Your task to perform on an android device: change timer sound Image 0: 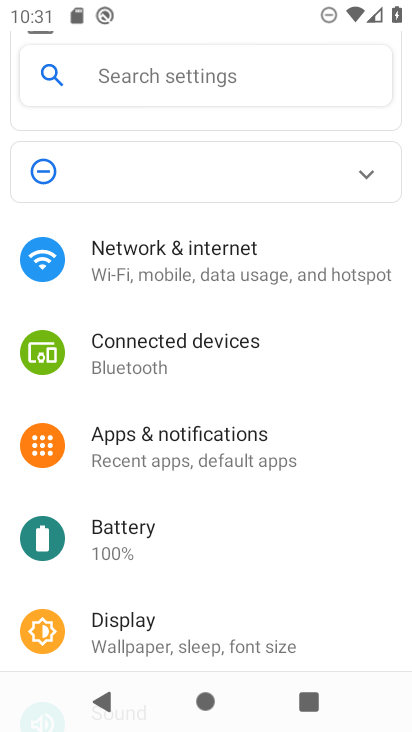
Step 0: press home button
Your task to perform on an android device: change timer sound Image 1: 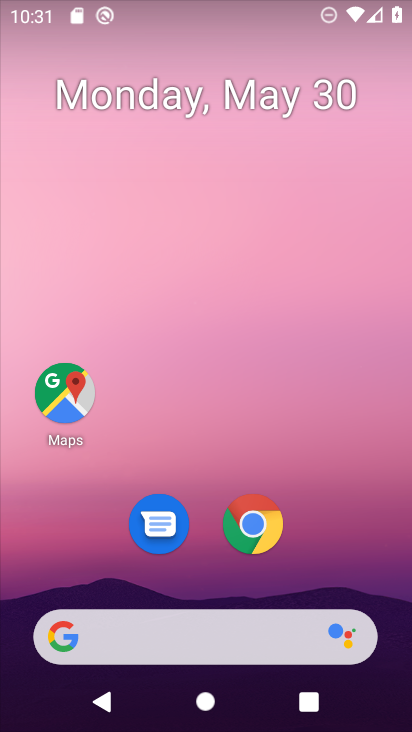
Step 1: drag from (288, 504) to (214, 22)
Your task to perform on an android device: change timer sound Image 2: 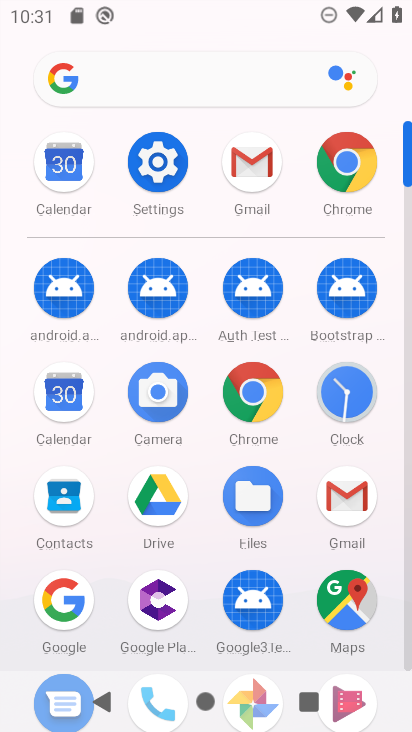
Step 2: click (348, 388)
Your task to perform on an android device: change timer sound Image 3: 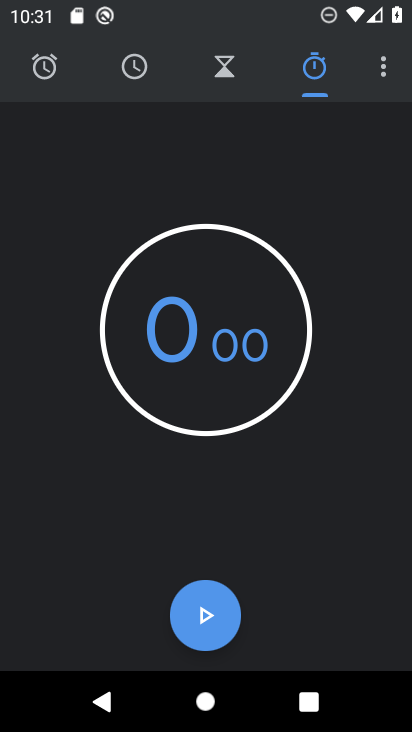
Step 3: click (389, 81)
Your task to perform on an android device: change timer sound Image 4: 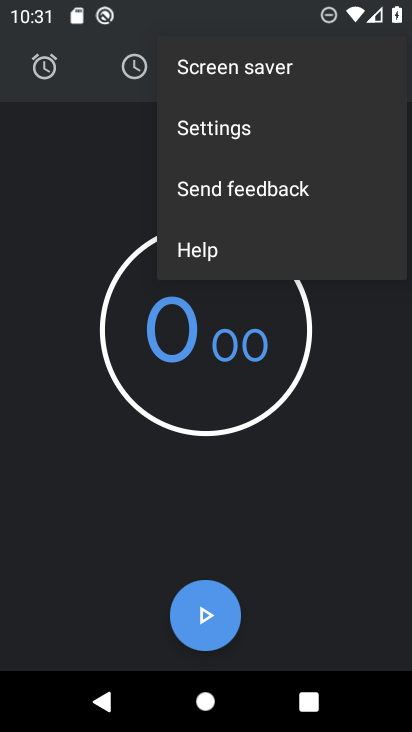
Step 4: click (300, 139)
Your task to perform on an android device: change timer sound Image 5: 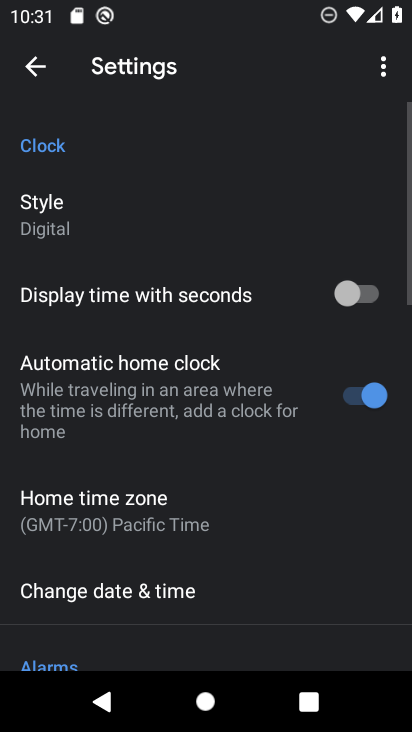
Step 5: drag from (242, 490) to (250, 1)
Your task to perform on an android device: change timer sound Image 6: 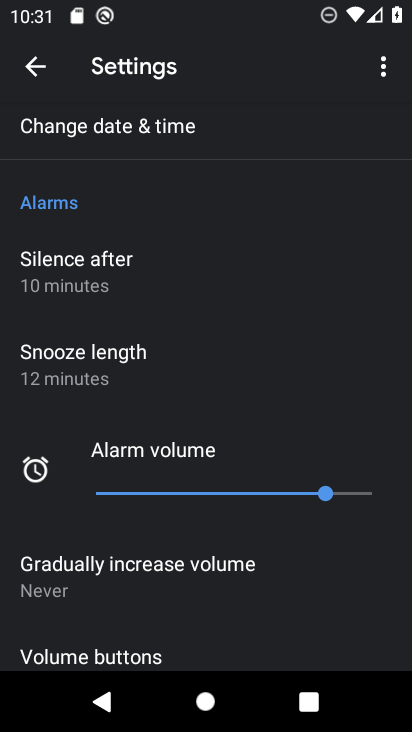
Step 6: drag from (186, 374) to (215, 1)
Your task to perform on an android device: change timer sound Image 7: 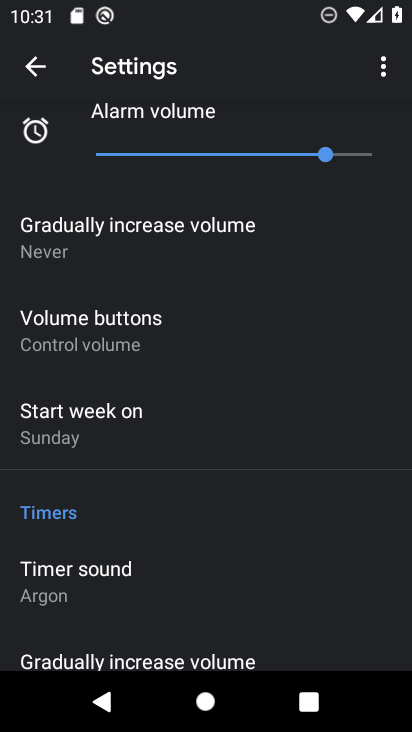
Step 7: click (184, 568)
Your task to perform on an android device: change timer sound Image 8: 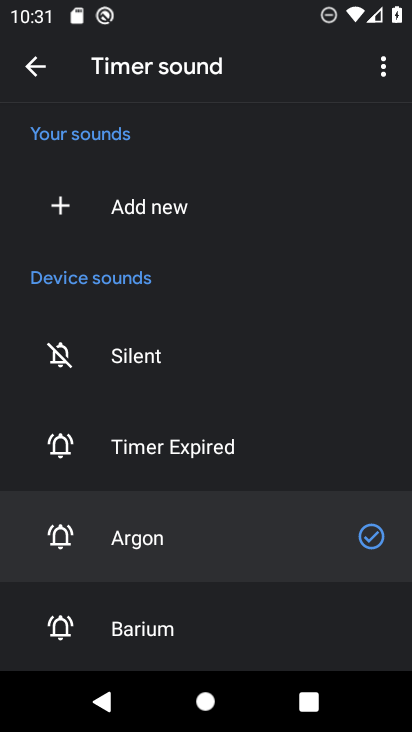
Step 8: click (179, 622)
Your task to perform on an android device: change timer sound Image 9: 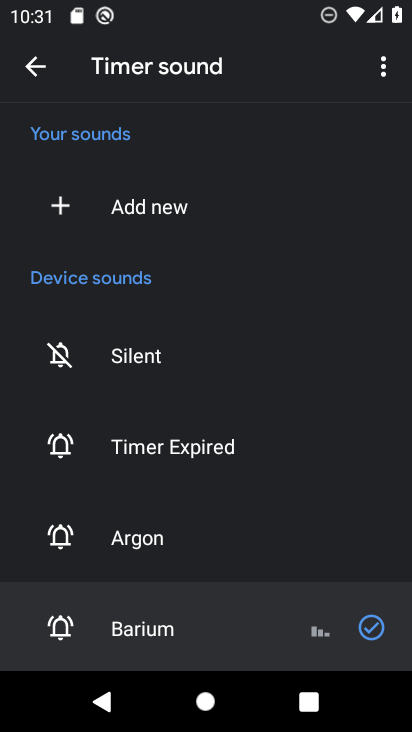
Step 9: task complete